Your task to perform on an android device: open chrome and create a bookmark for the current page Image 0: 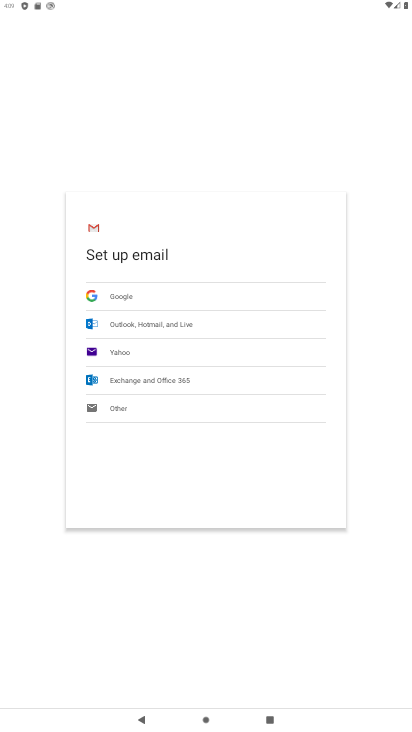
Step 0: press home button
Your task to perform on an android device: open chrome and create a bookmark for the current page Image 1: 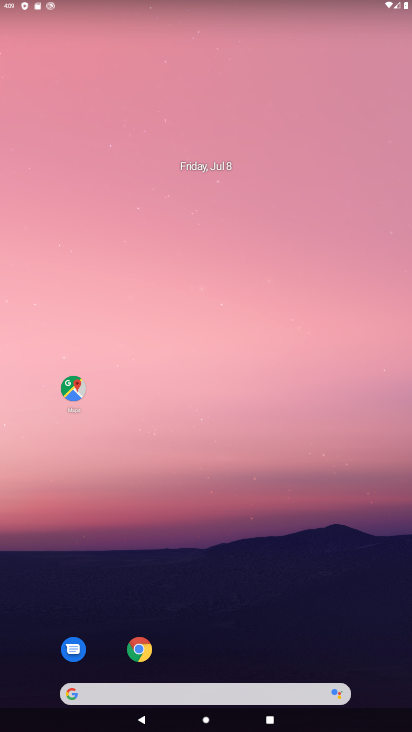
Step 1: drag from (194, 641) to (325, 164)
Your task to perform on an android device: open chrome and create a bookmark for the current page Image 2: 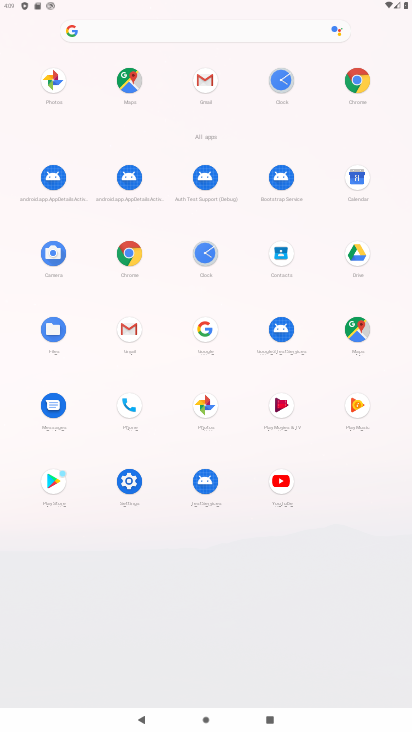
Step 2: click (136, 254)
Your task to perform on an android device: open chrome and create a bookmark for the current page Image 3: 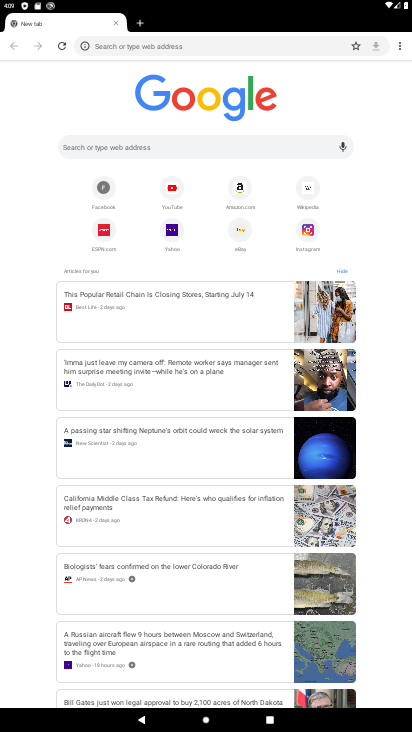
Step 3: click (355, 45)
Your task to perform on an android device: open chrome and create a bookmark for the current page Image 4: 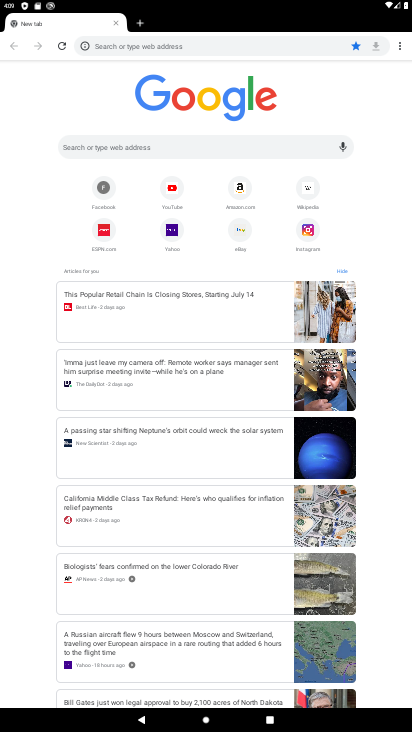
Step 4: task complete